Your task to perform on an android device: Go to Wikipedia Image 0: 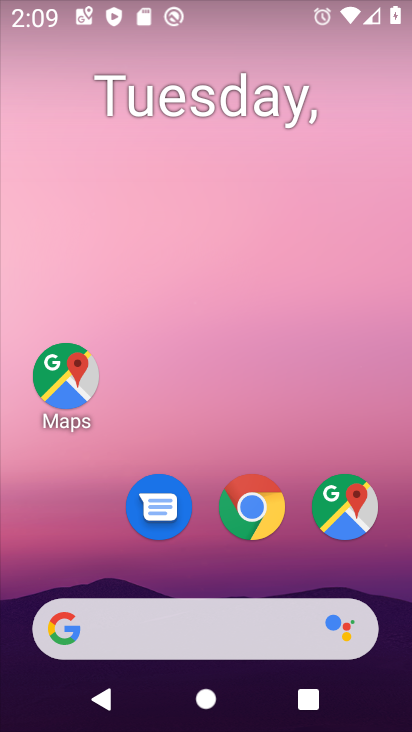
Step 0: click (242, 517)
Your task to perform on an android device: Go to Wikipedia Image 1: 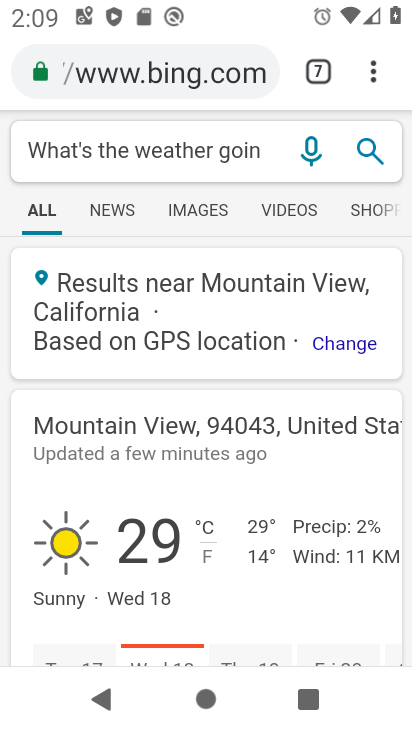
Step 1: click (375, 62)
Your task to perform on an android device: Go to Wikipedia Image 2: 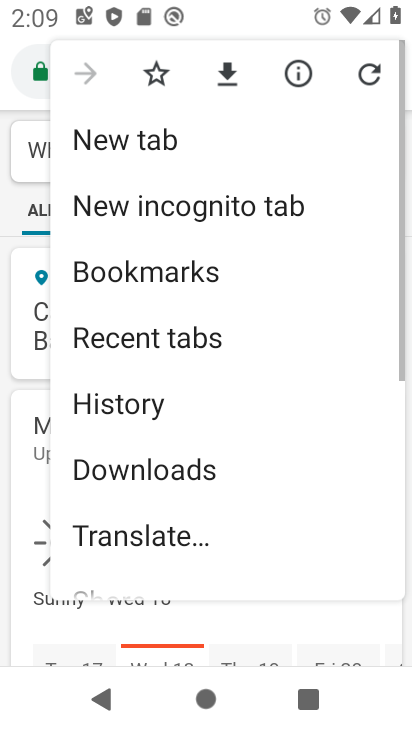
Step 2: click (145, 136)
Your task to perform on an android device: Go to Wikipedia Image 3: 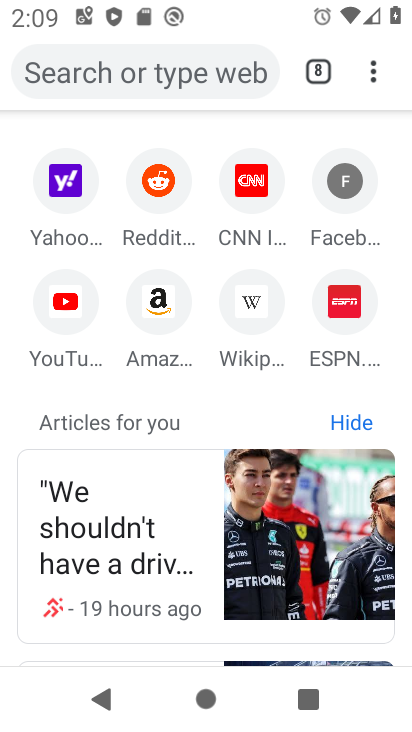
Step 3: click (248, 303)
Your task to perform on an android device: Go to Wikipedia Image 4: 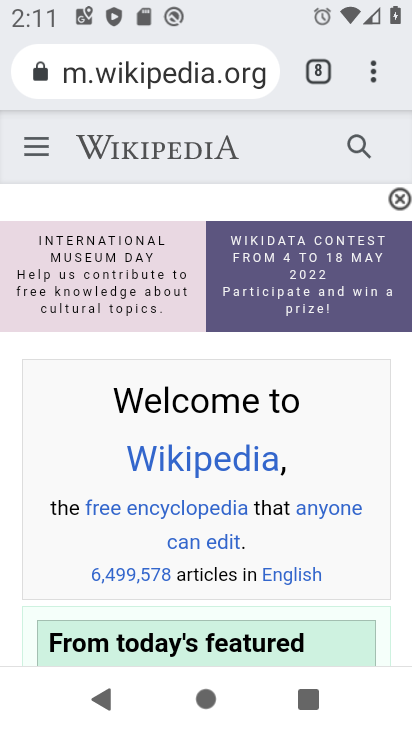
Step 4: task complete